Your task to perform on an android device: Open Amazon Image 0: 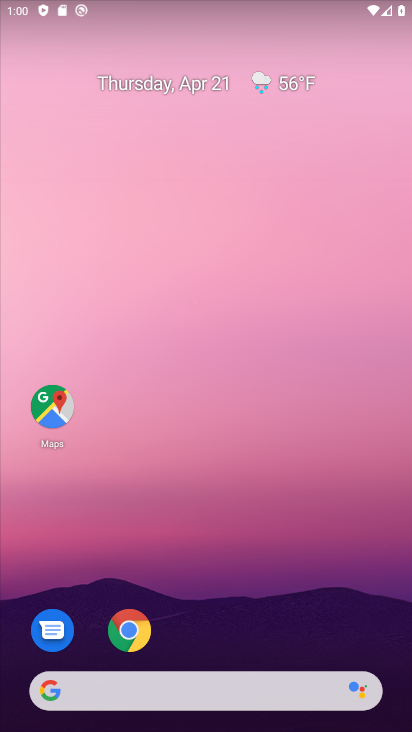
Step 0: click (138, 626)
Your task to perform on an android device: Open Amazon Image 1: 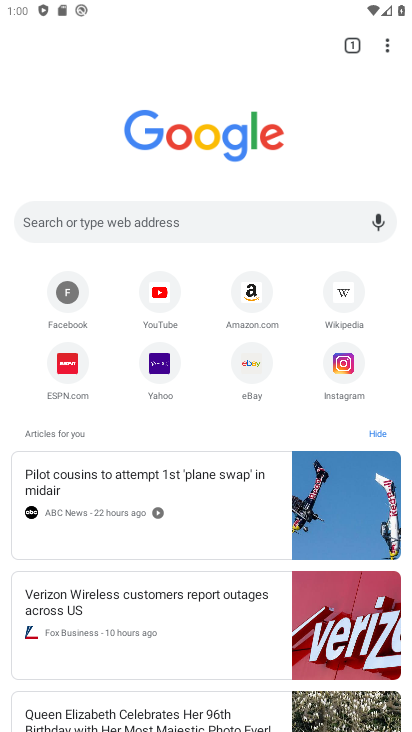
Step 1: click (260, 295)
Your task to perform on an android device: Open Amazon Image 2: 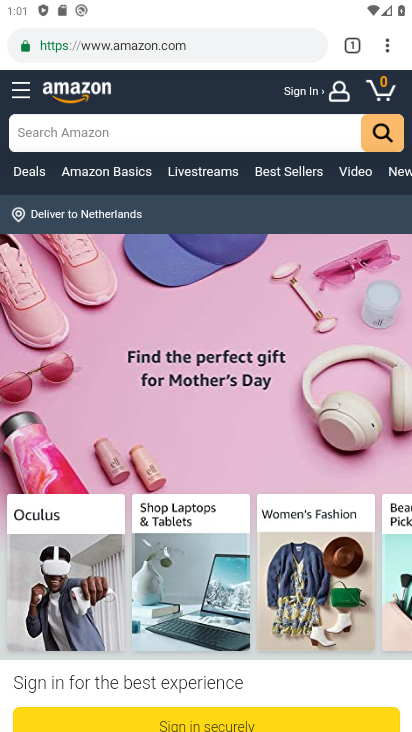
Step 2: task complete